Your task to perform on an android device: make emails show in primary in the gmail app Image 0: 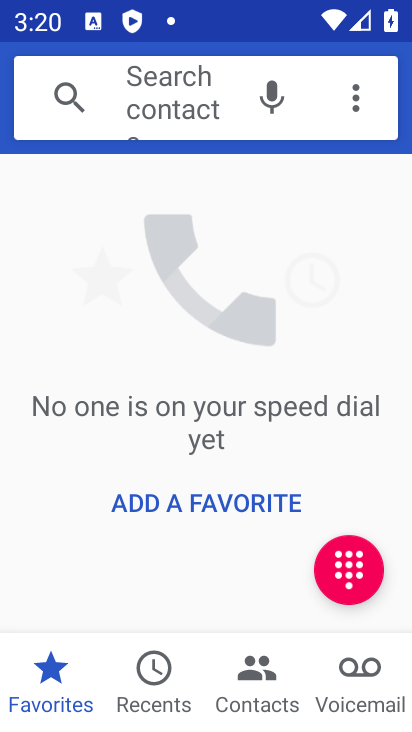
Step 0: press home button
Your task to perform on an android device: make emails show in primary in the gmail app Image 1: 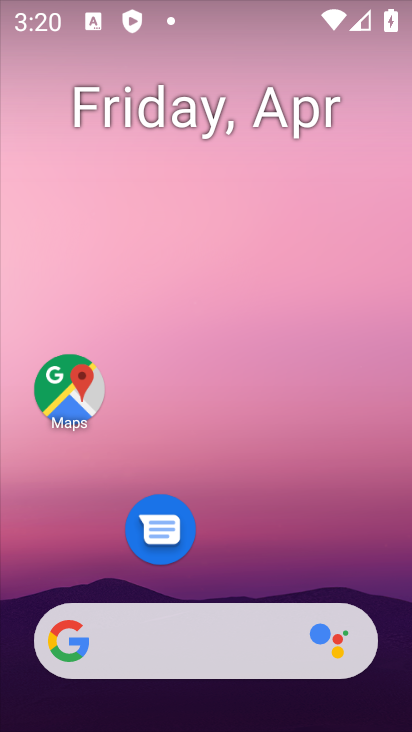
Step 1: drag from (231, 553) to (313, 147)
Your task to perform on an android device: make emails show in primary in the gmail app Image 2: 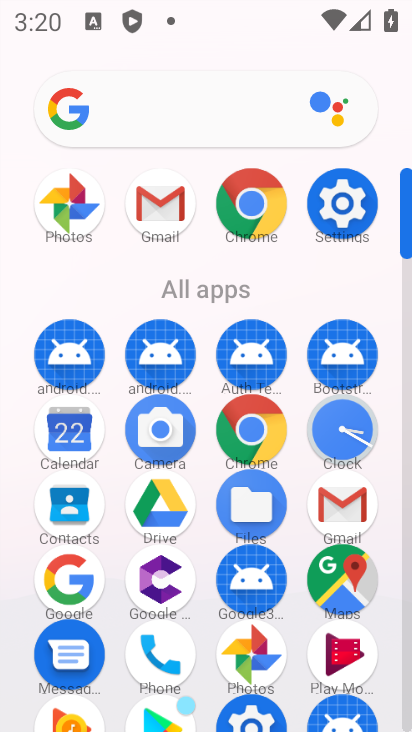
Step 2: click (345, 508)
Your task to perform on an android device: make emails show in primary in the gmail app Image 3: 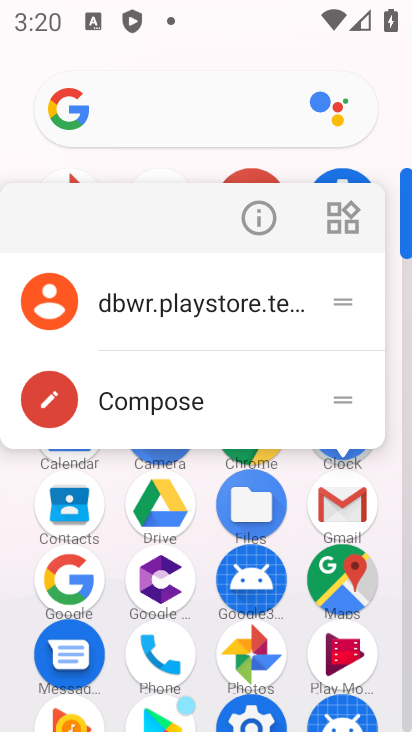
Step 3: click (347, 508)
Your task to perform on an android device: make emails show in primary in the gmail app Image 4: 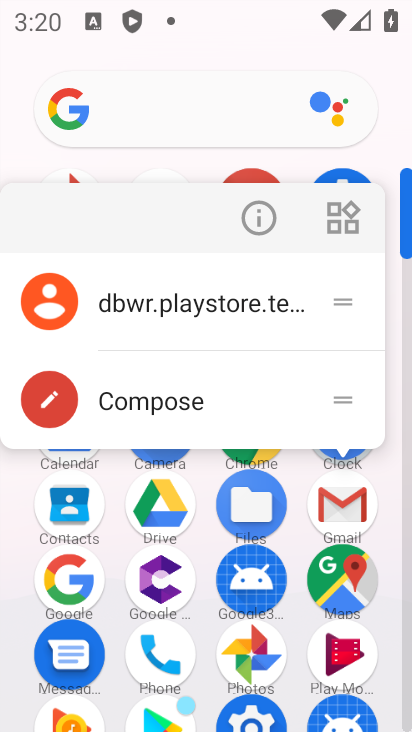
Step 4: click (348, 520)
Your task to perform on an android device: make emails show in primary in the gmail app Image 5: 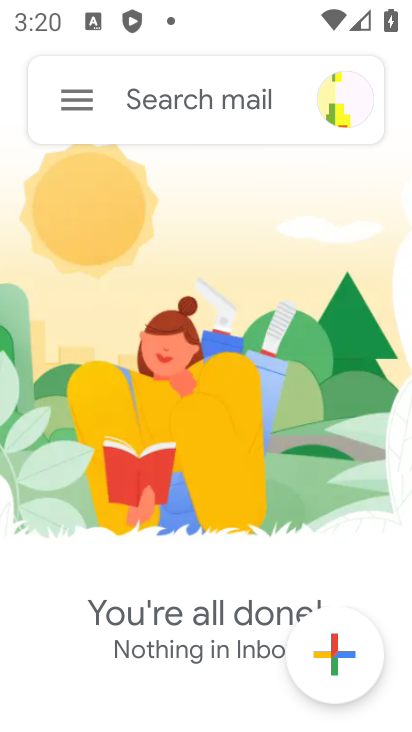
Step 5: click (70, 102)
Your task to perform on an android device: make emails show in primary in the gmail app Image 6: 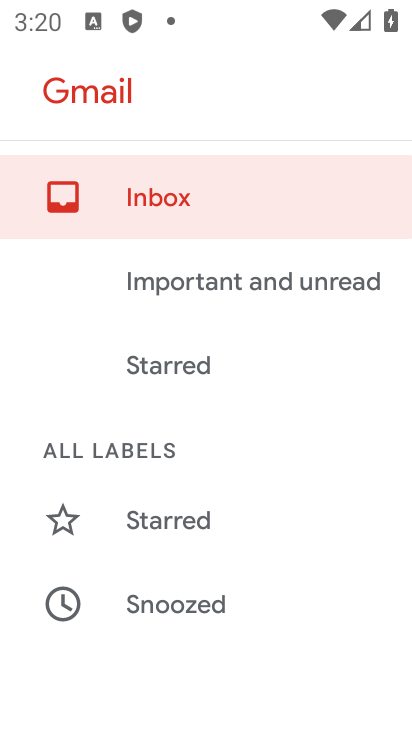
Step 6: drag from (263, 514) to (282, 355)
Your task to perform on an android device: make emails show in primary in the gmail app Image 7: 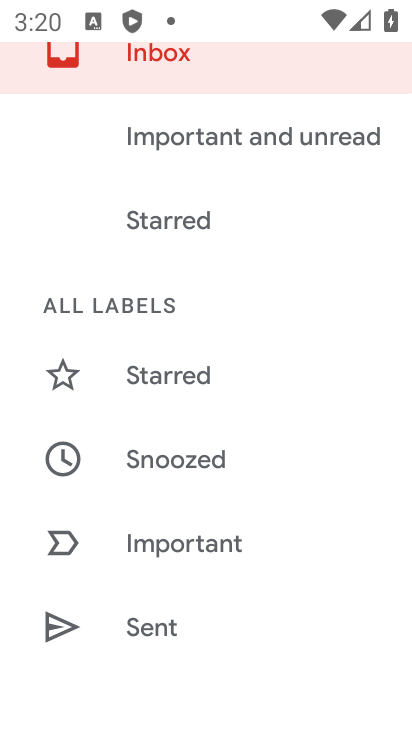
Step 7: drag from (230, 560) to (324, 108)
Your task to perform on an android device: make emails show in primary in the gmail app Image 8: 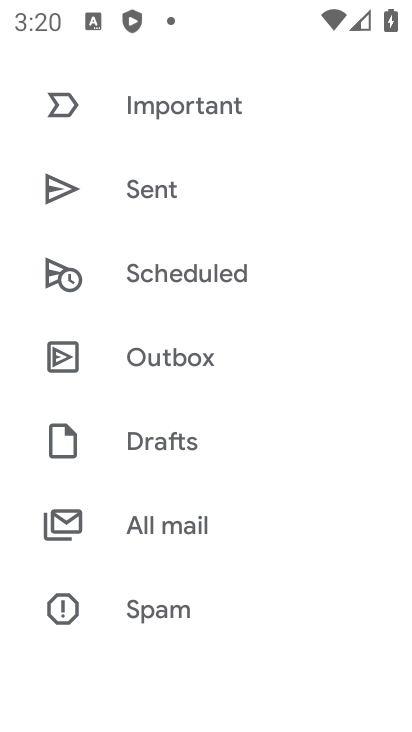
Step 8: drag from (289, 426) to (333, 125)
Your task to perform on an android device: make emails show in primary in the gmail app Image 9: 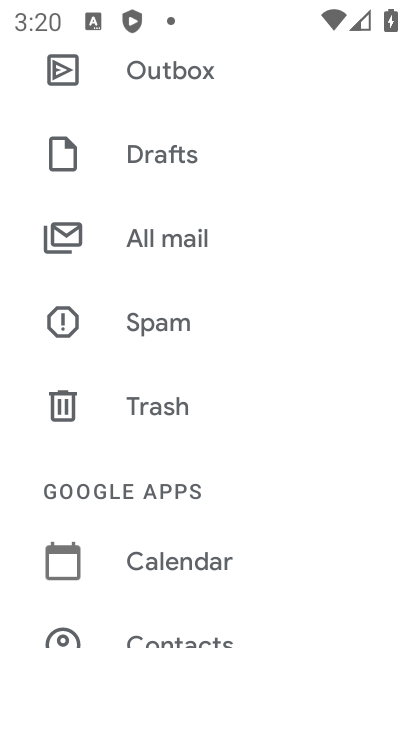
Step 9: click (235, 239)
Your task to perform on an android device: make emails show in primary in the gmail app Image 10: 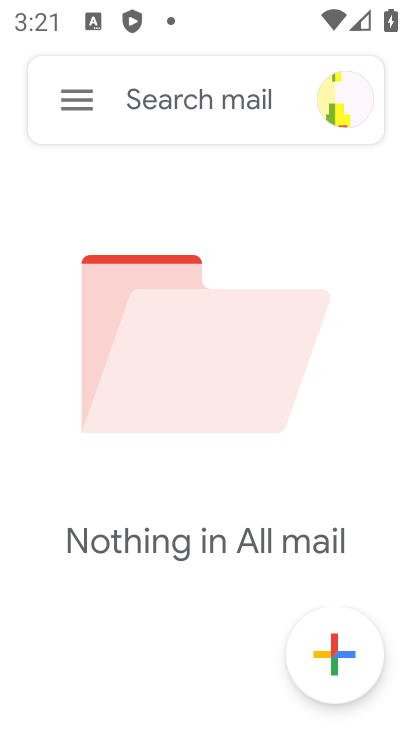
Step 10: task complete